Your task to perform on an android device: turn on data saver in the chrome app Image 0: 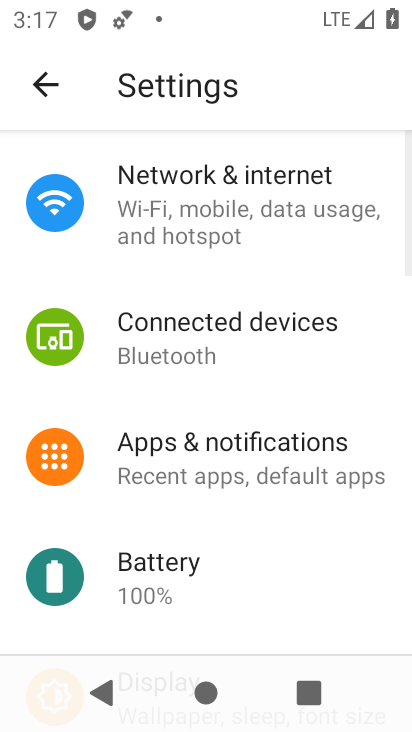
Step 0: press home button
Your task to perform on an android device: turn on data saver in the chrome app Image 1: 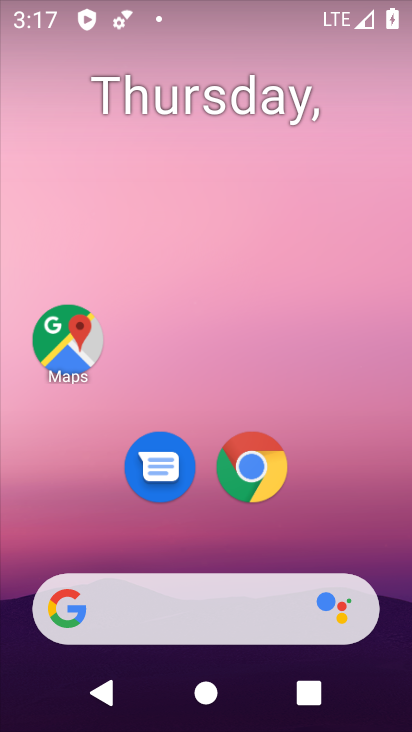
Step 1: click (242, 486)
Your task to perform on an android device: turn on data saver in the chrome app Image 2: 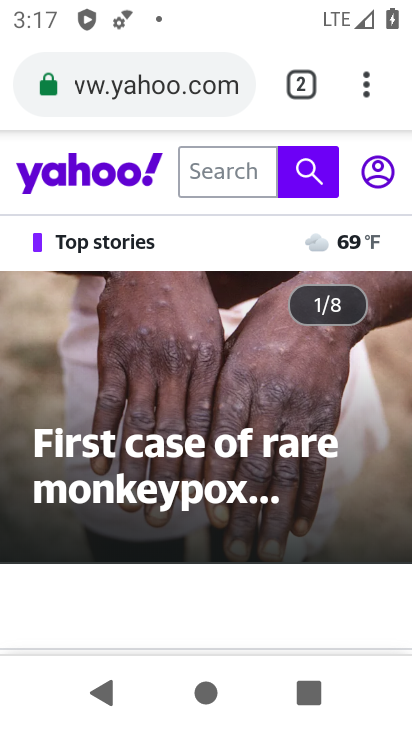
Step 2: click (373, 80)
Your task to perform on an android device: turn on data saver in the chrome app Image 3: 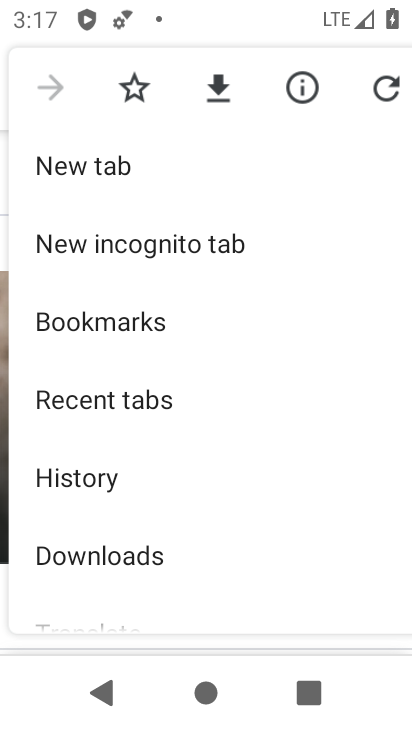
Step 3: drag from (176, 471) to (251, 43)
Your task to perform on an android device: turn on data saver in the chrome app Image 4: 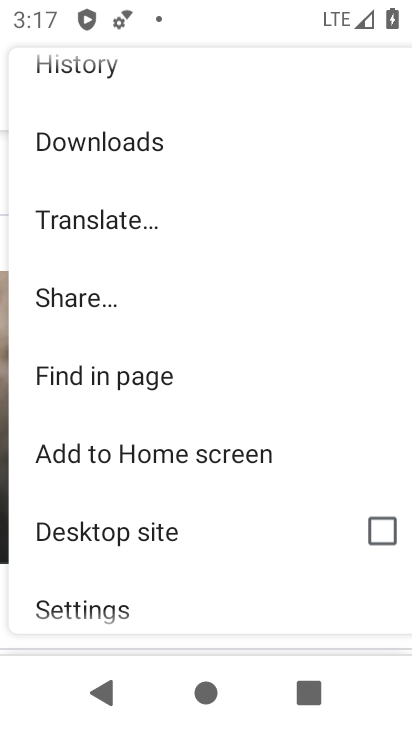
Step 4: click (114, 596)
Your task to perform on an android device: turn on data saver in the chrome app Image 5: 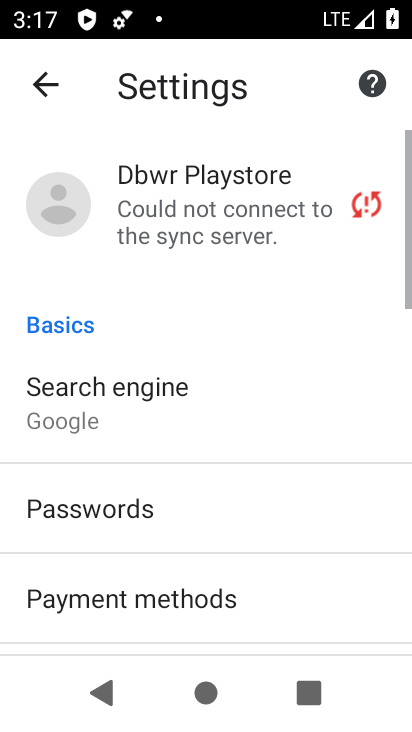
Step 5: drag from (160, 526) to (209, 75)
Your task to perform on an android device: turn on data saver in the chrome app Image 6: 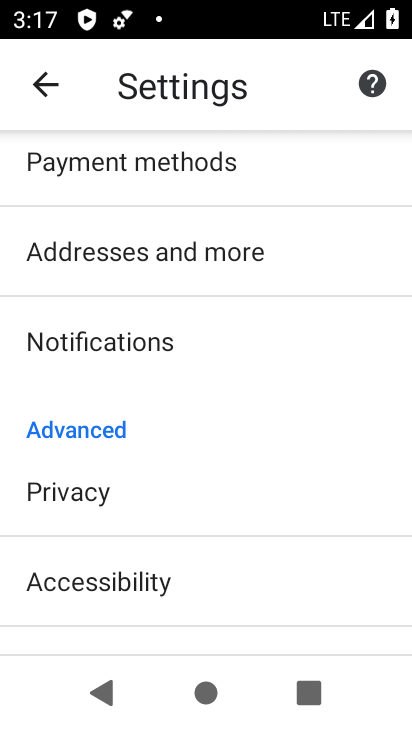
Step 6: drag from (160, 581) to (213, 149)
Your task to perform on an android device: turn on data saver in the chrome app Image 7: 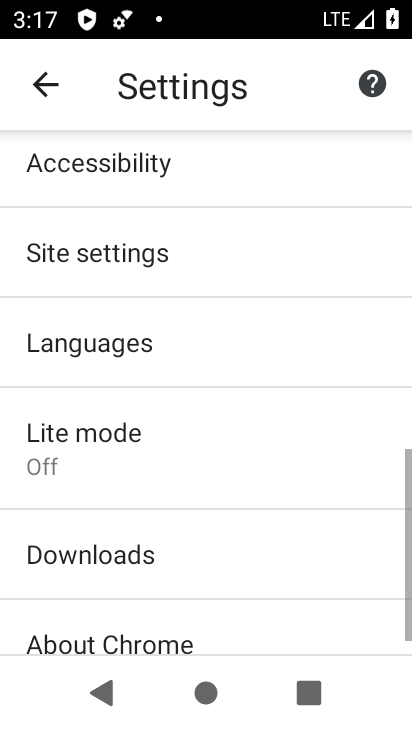
Step 7: click (156, 468)
Your task to perform on an android device: turn on data saver in the chrome app Image 8: 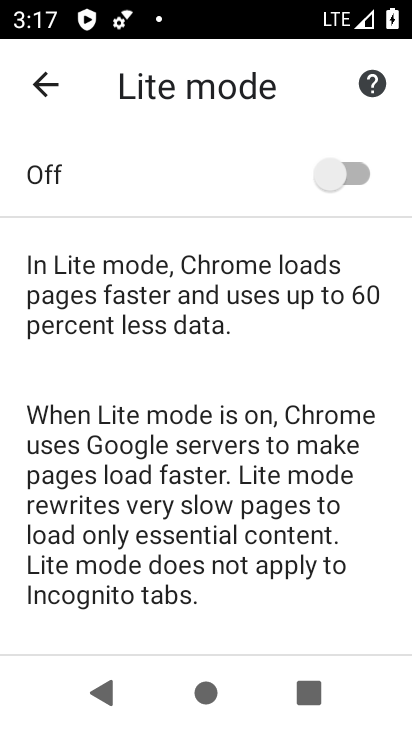
Step 8: click (347, 182)
Your task to perform on an android device: turn on data saver in the chrome app Image 9: 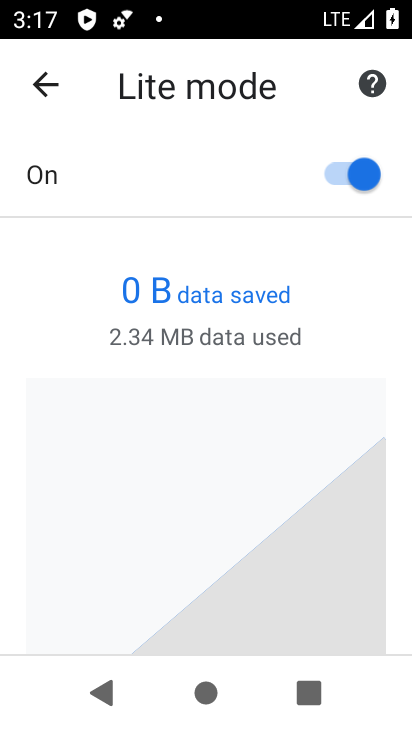
Step 9: task complete